Your task to perform on an android device: Search for 3d printed chess sets on Etsy. Image 0: 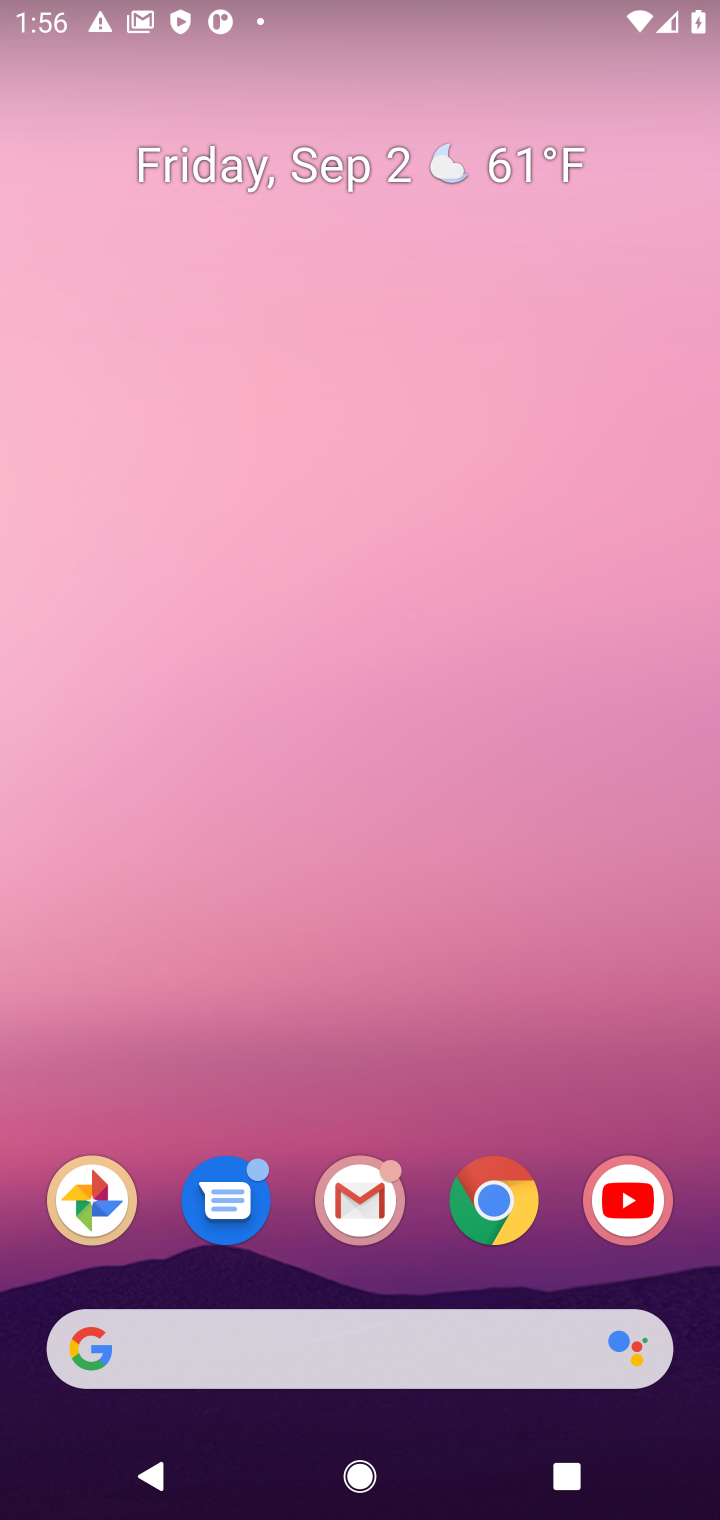
Step 0: click (486, 1164)
Your task to perform on an android device: Search for 3d printed chess sets on Etsy. Image 1: 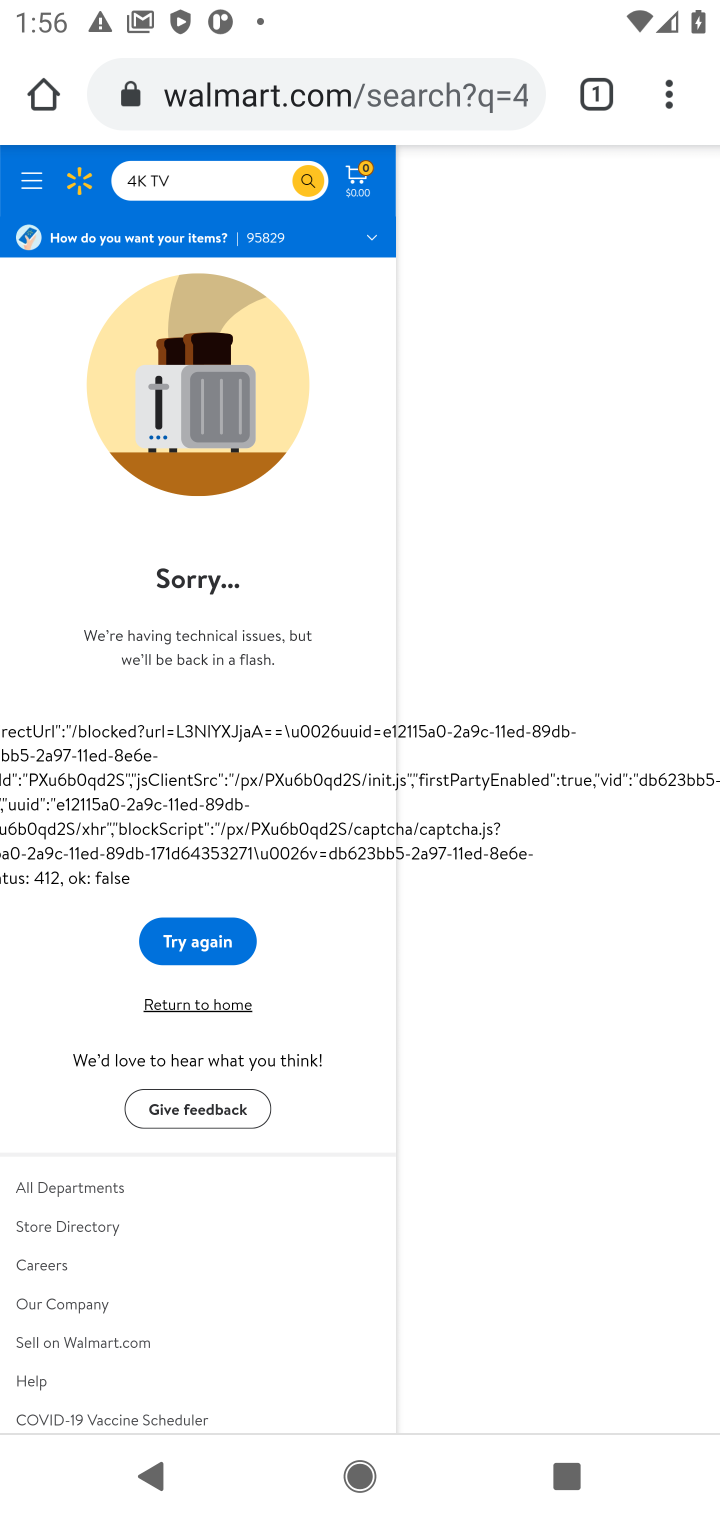
Step 1: click (428, 80)
Your task to perform on an android device: Search for 3d printed chess sets on Etsy. Image 2: 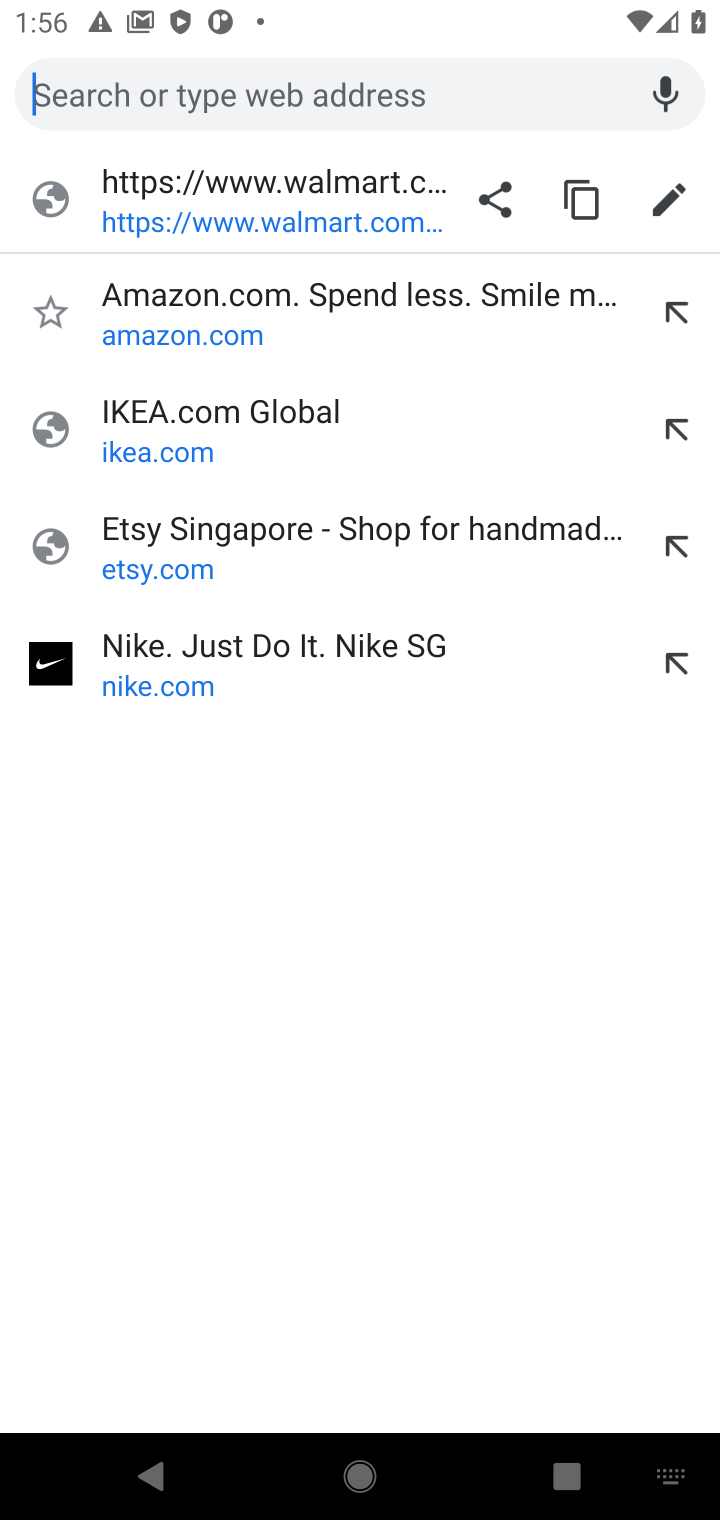
Step 2: type "Etsy"
Your task to perform on an android device: Search for 3d printed chess sets on Etsy. Image 3: 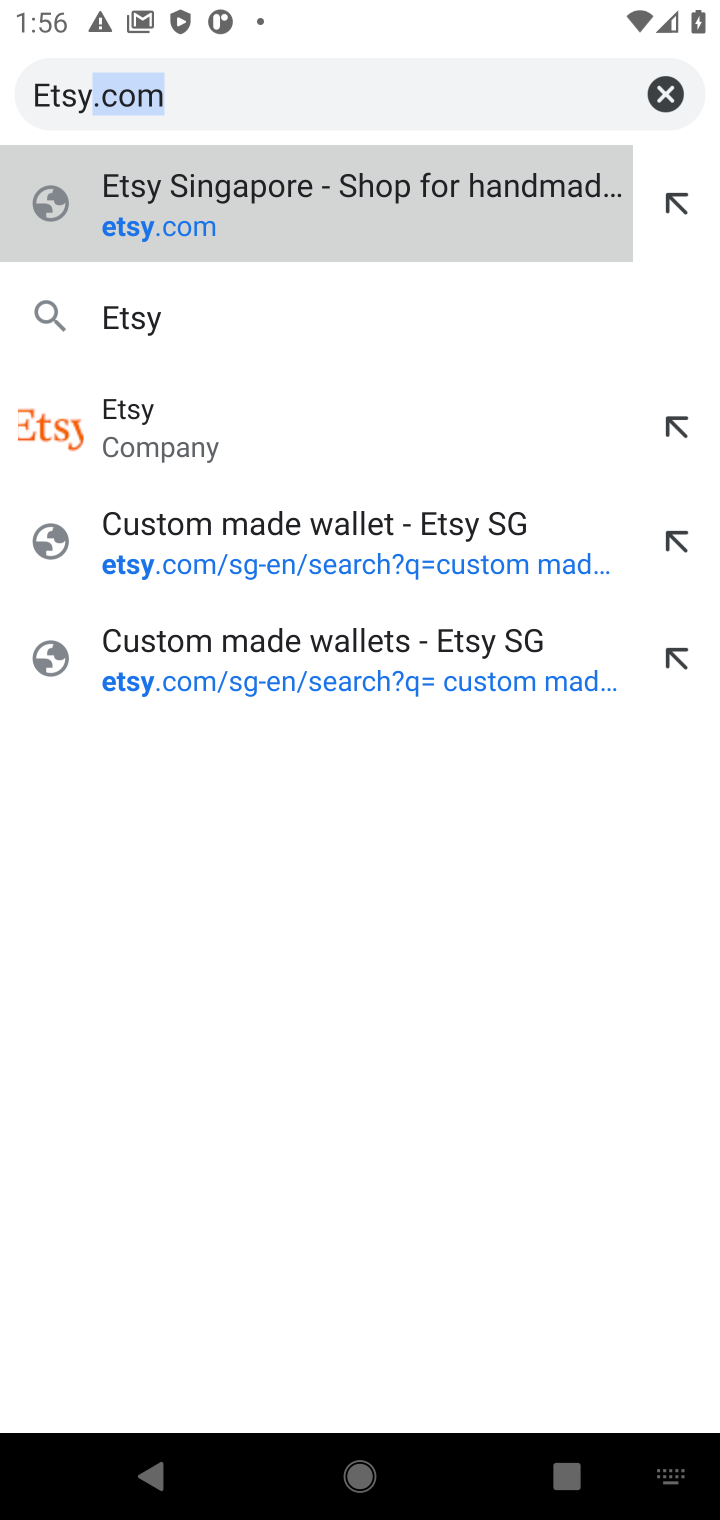
Step 3: press enter
Your task to perform on an android device: Search for 3d printed chess sets on Etsy. Image 4: 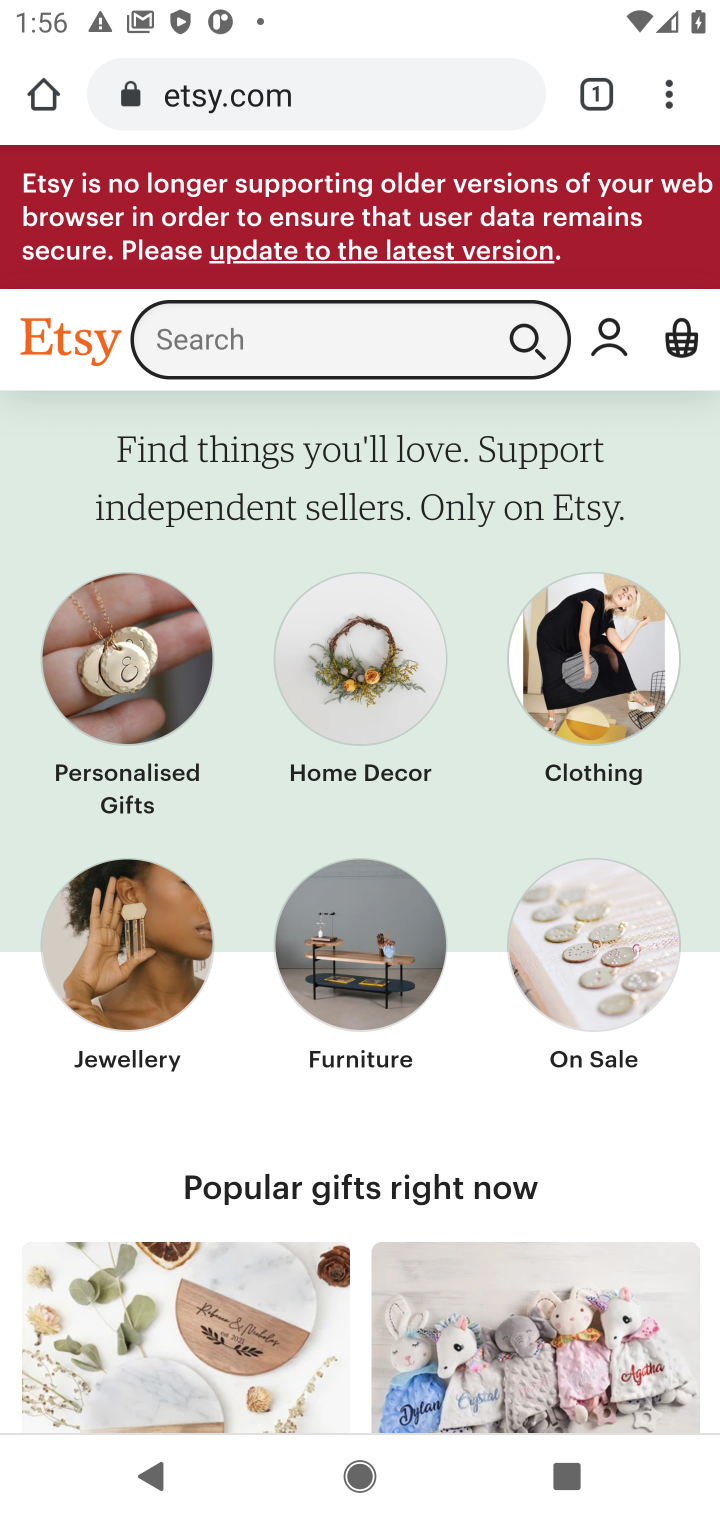
Step 4: click (249, 342)
Your task to perform on an android device: Search for 3d printed chess sets on Etsy. Image 5: 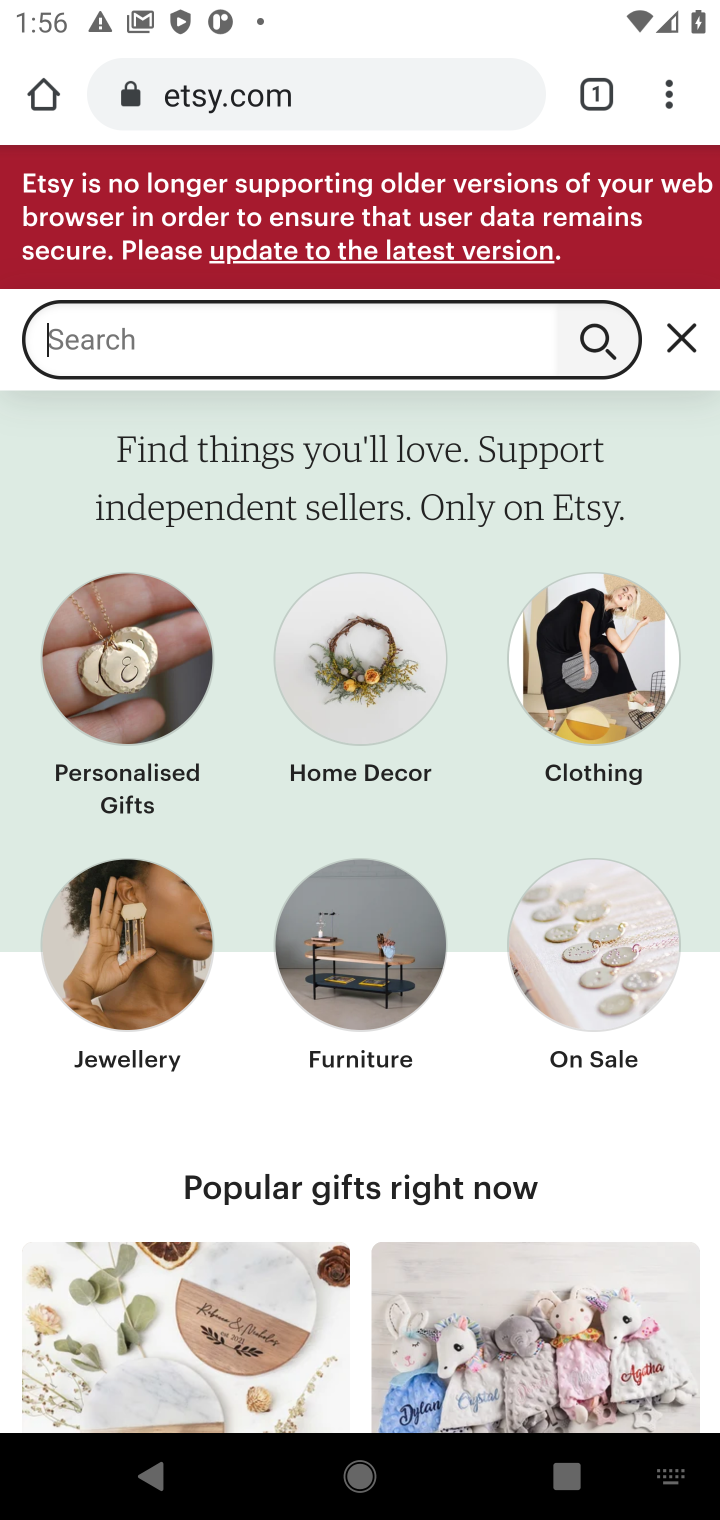
Step 5: press enter
Your task to perform on an android device: Search for 3d printed chess sets on Etsy. Image 6: 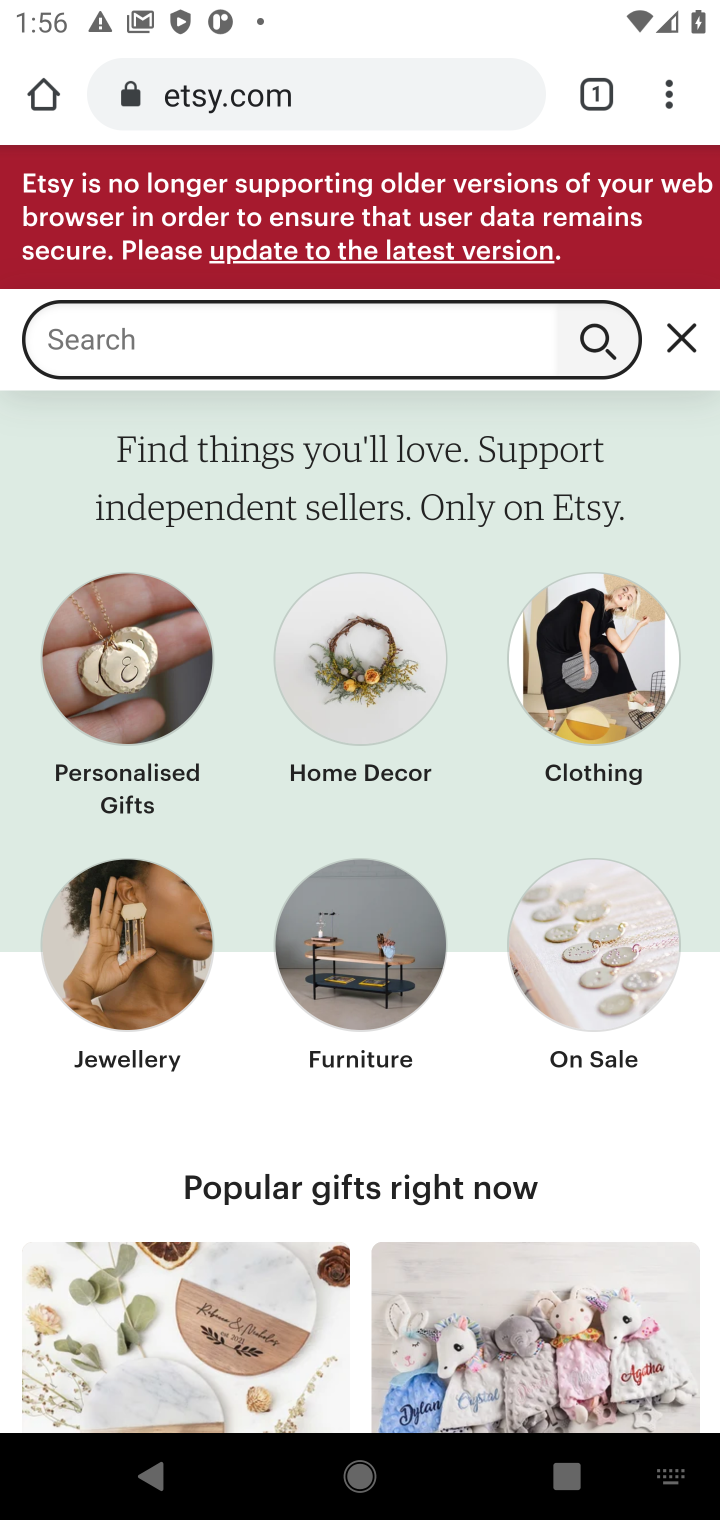
Step 6: type "3d printed chess sets"
Your task to perform on an android device: Search for 3d printed chess sets on Etsy. Image 7: 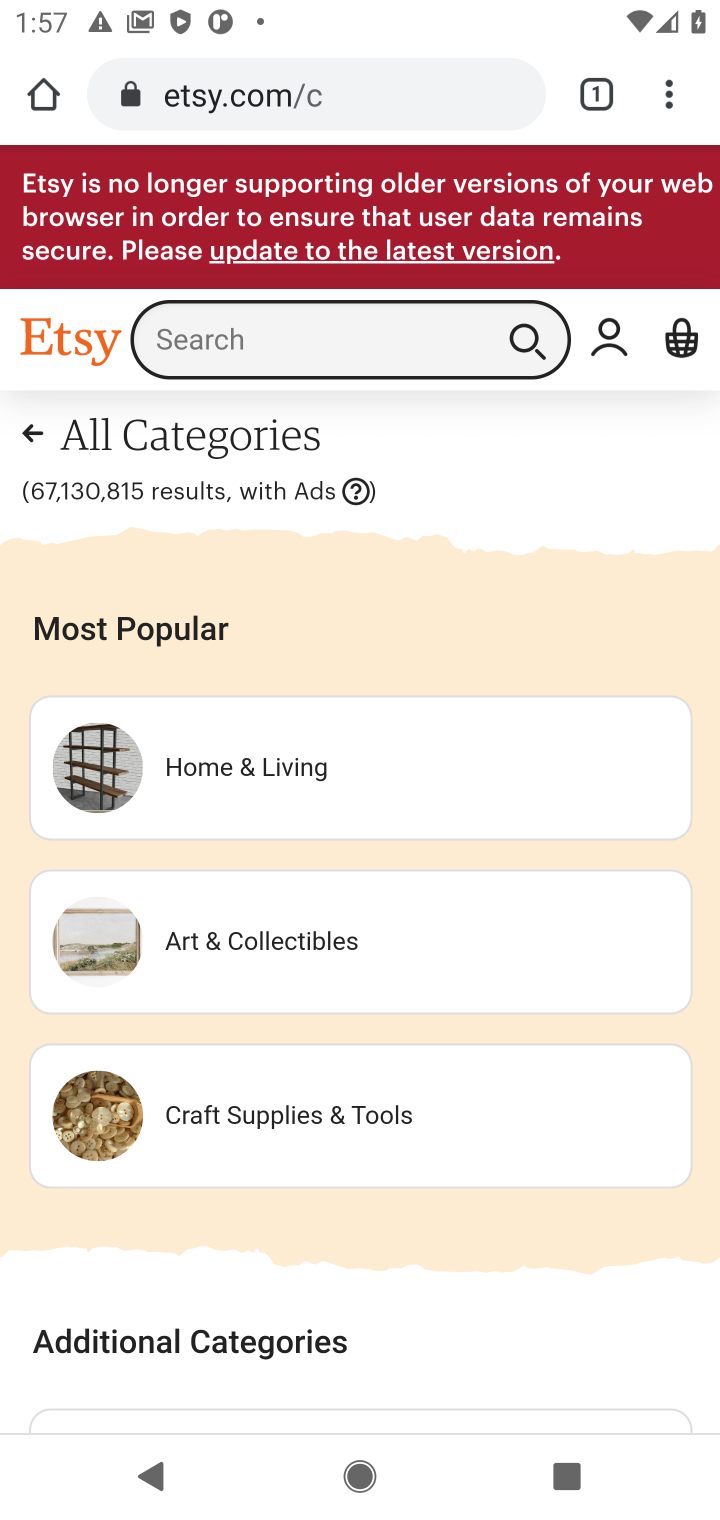
Step 7: click (454, 351)
Your task to perform on an android device: Search for 3d printed chess sets on Etsy. Image 8: 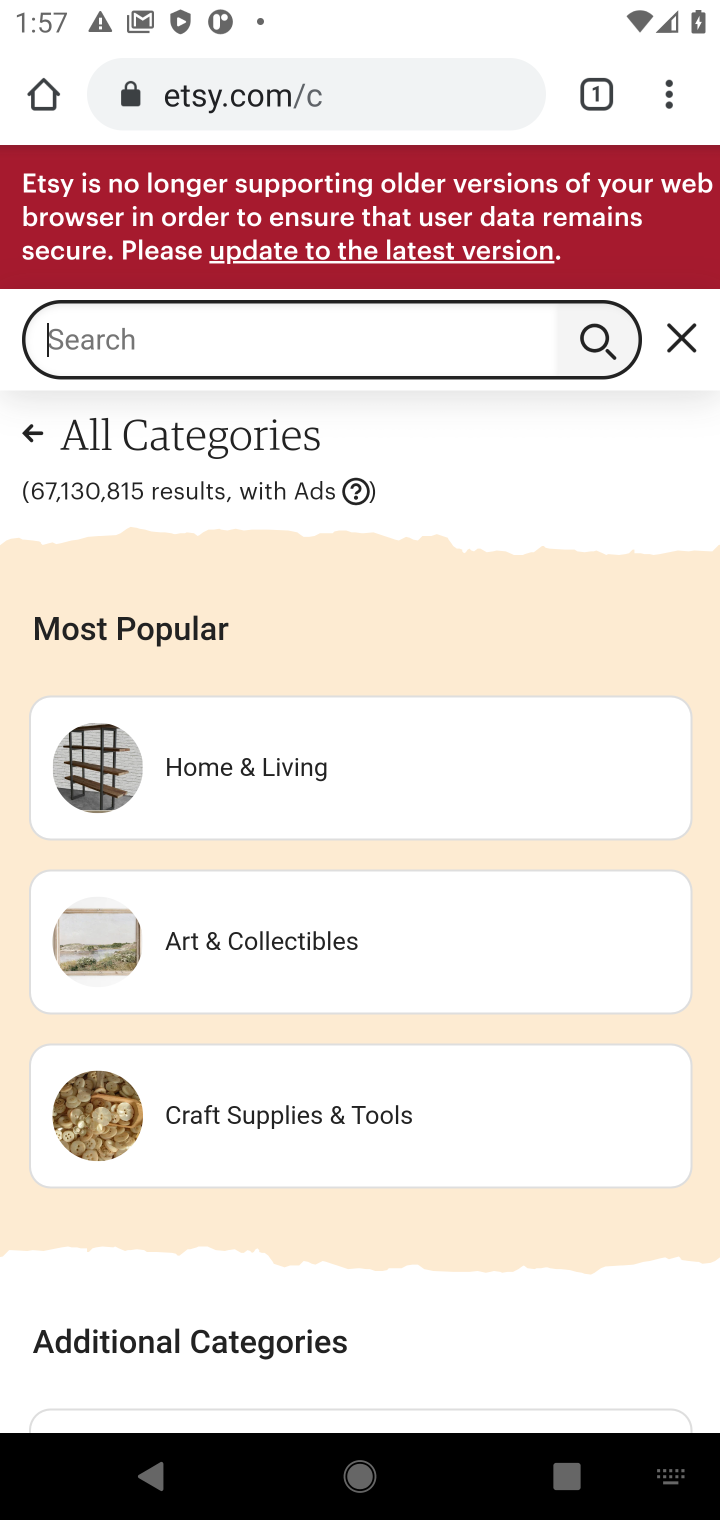
Step 8: click (428, 328)
Your task to perform on an android device: Search for 3d printed chess sets on Etsy. Image 9: 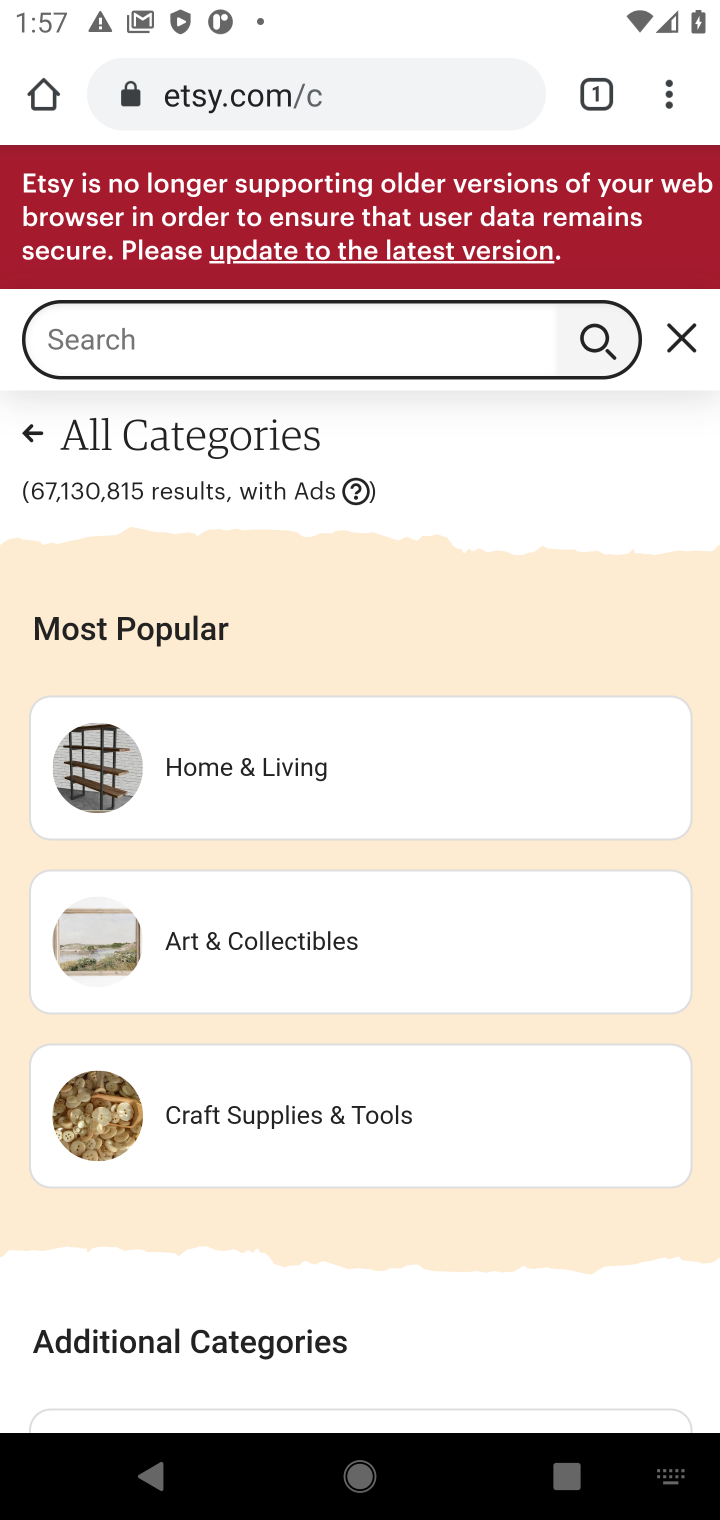
Step 9: type "3d printed chess sets"
Your task to perform on an android device: Search for 3d printed chess sets on Etsy. Image 10: 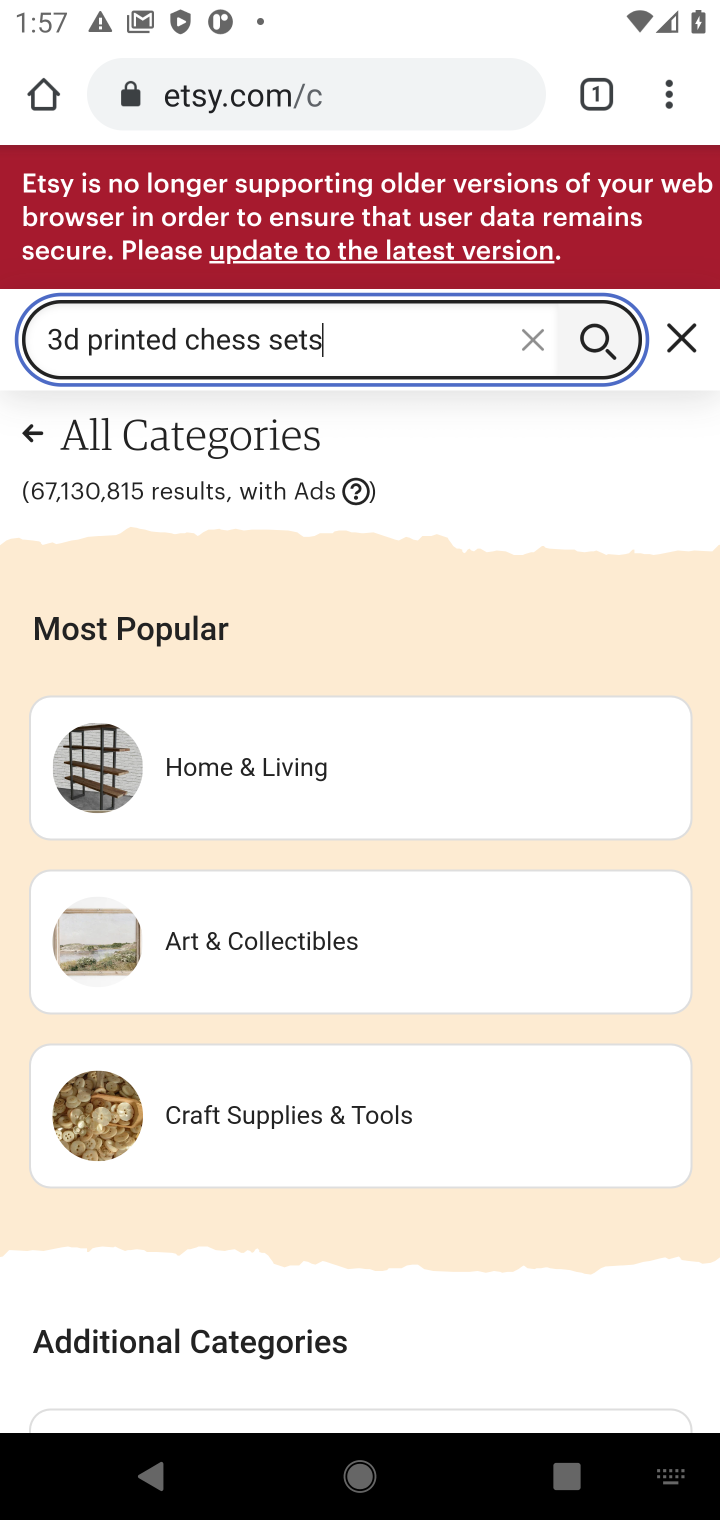
Step 10: press enter
Your task to perform on an android device: Search for 3d printed chess sets on Etsy. Image 11: 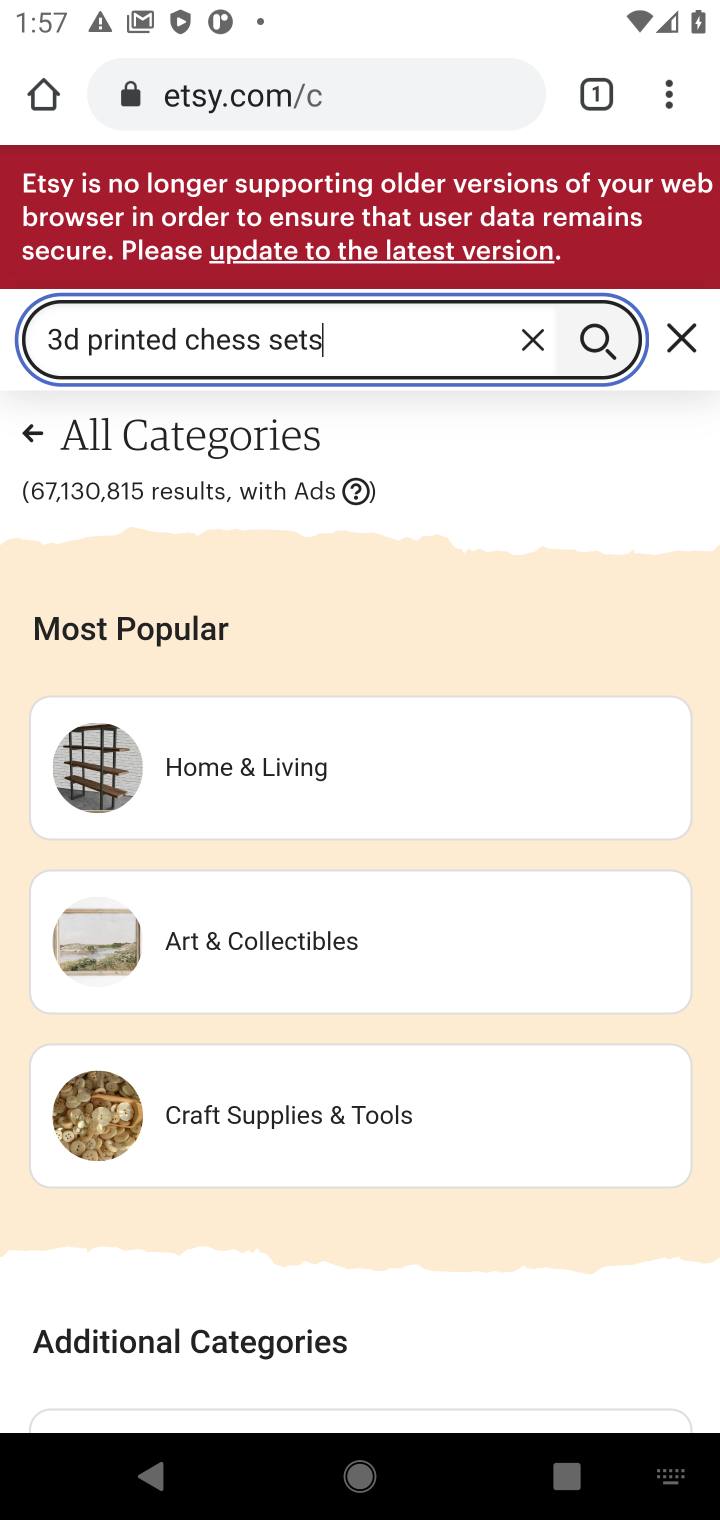
Step 11: click (588, 339)
Your task to perform on an android device: Search for 3d printed chess sets on Etsy. Image 12: 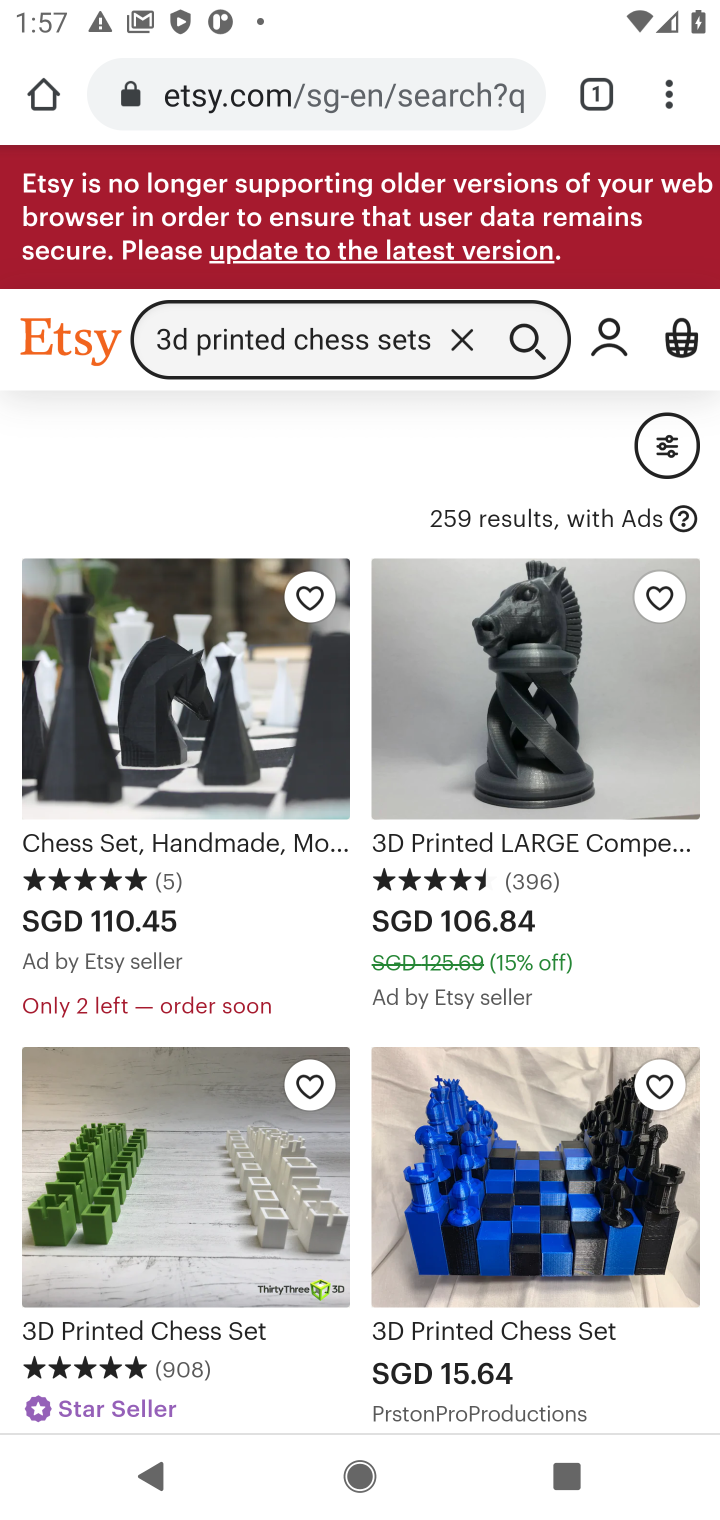
Step 12: click (459, 464)
Your task to perform on an android device: Search for 3d printed chess sets on Etsy. Image 13: 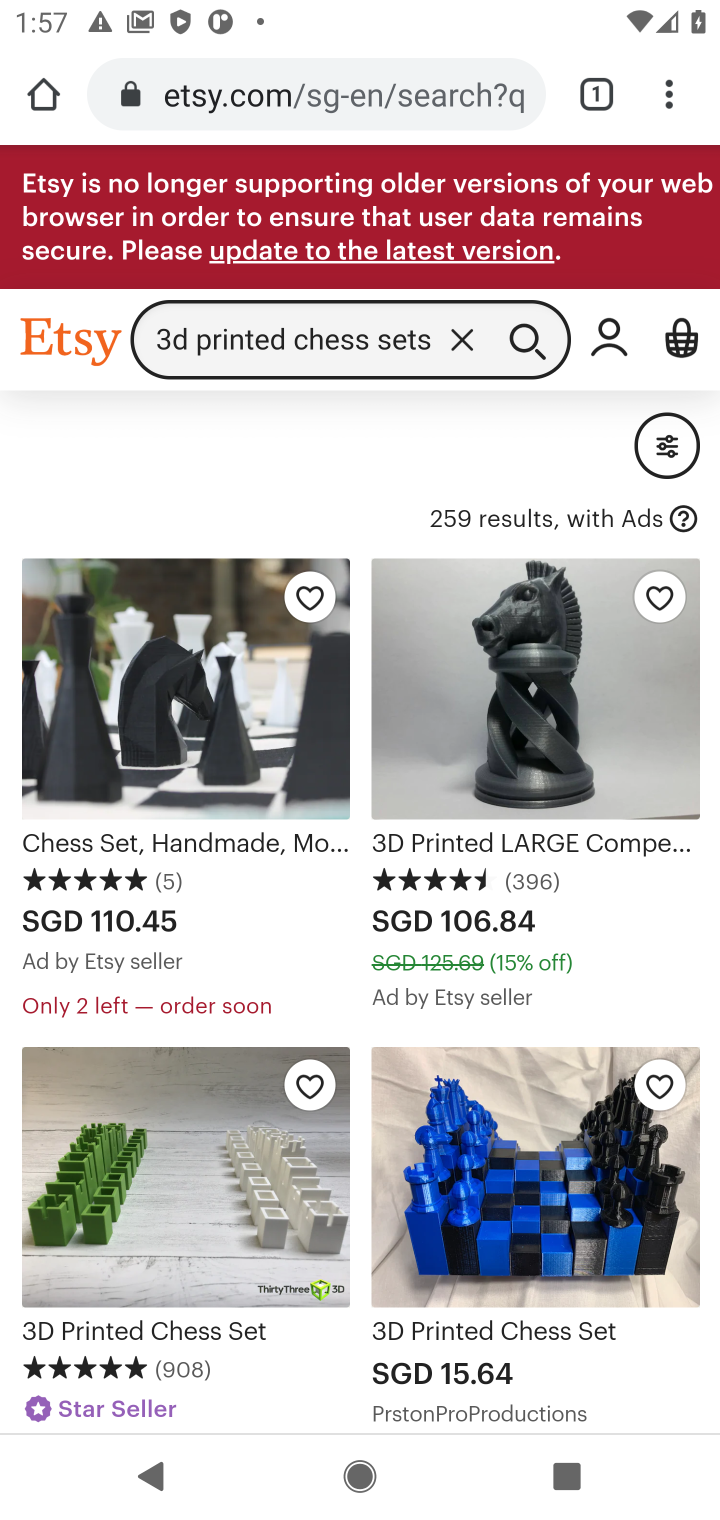
Step 13: drag from (355, 1019) to (546, 371)
Your task to perform on an android device: Search for 3d printed chess sets on Etsy. Image 14: 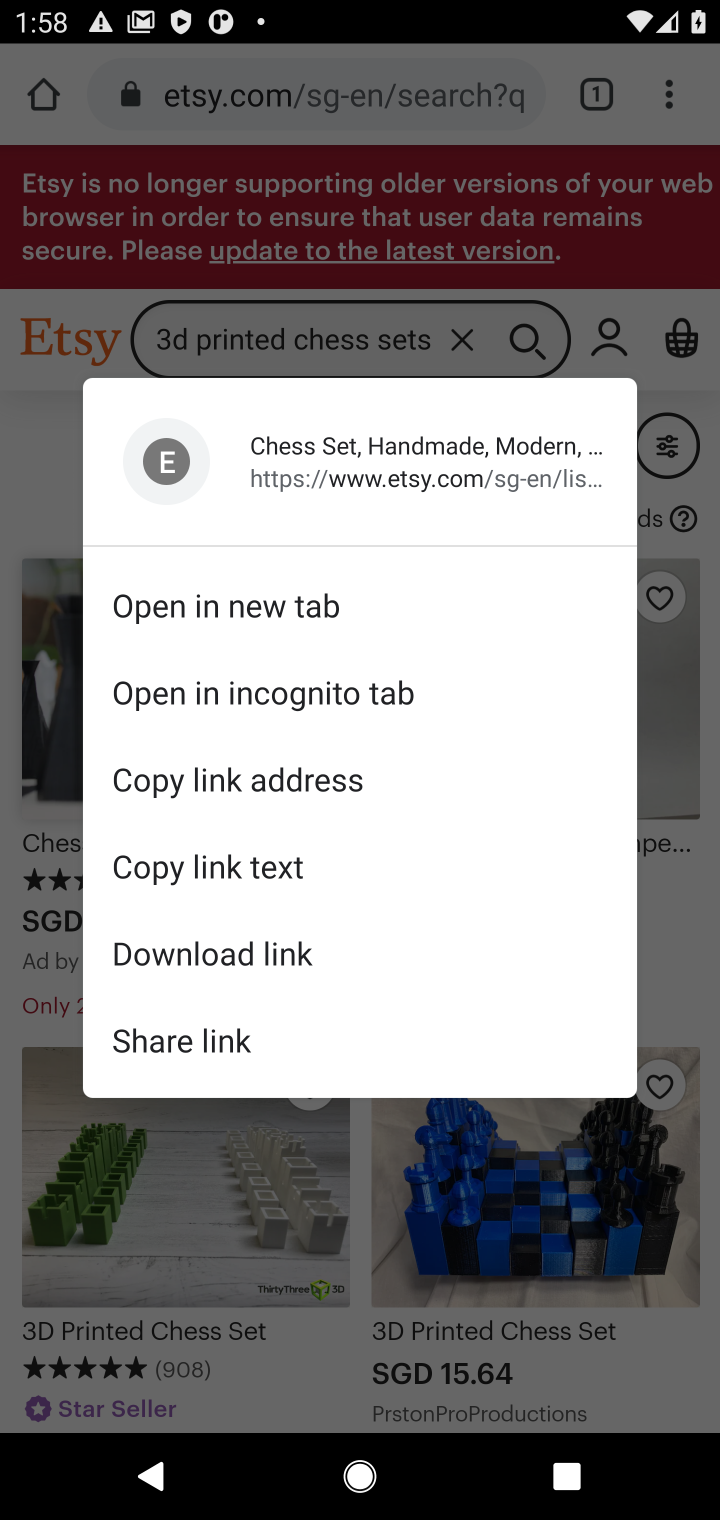
Step 14: click (663, 1010)
Your task to perform on an android device: Search for 3d printed chess sets on Etsy. Image 15: 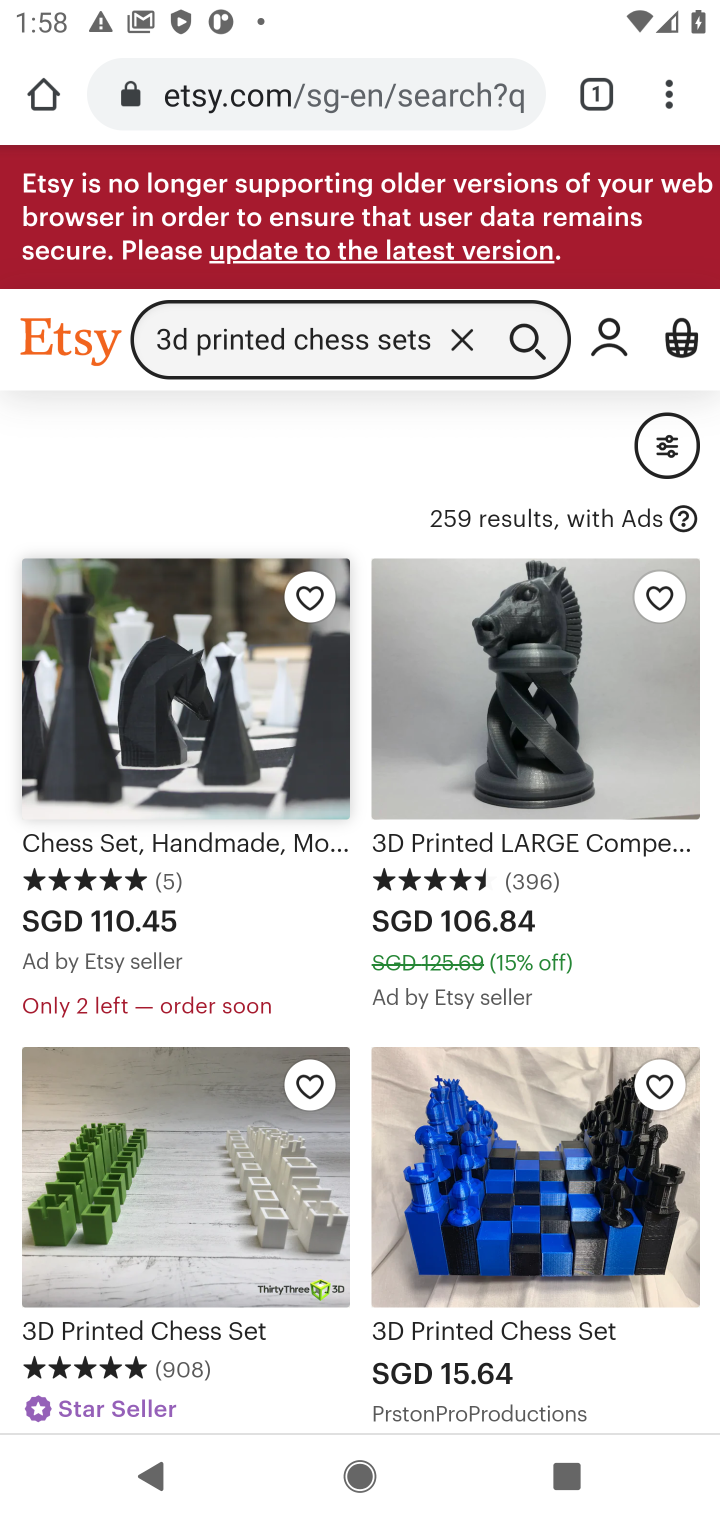
Step 15: task complete